Your task to perform on an android device: turn off translation in the chrome app Image 0: 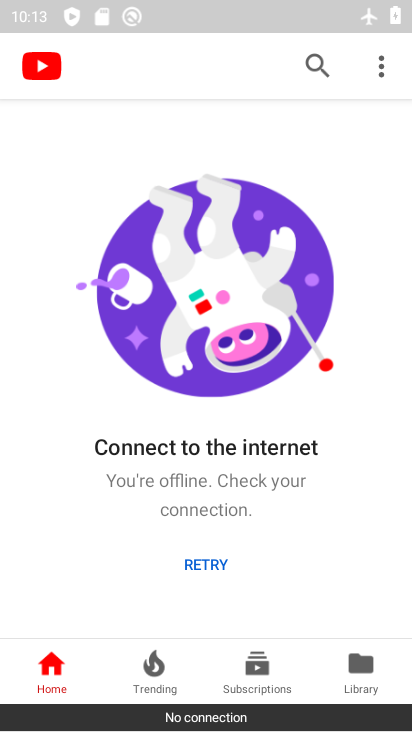
Step 0: press back button
Your task to perform on an android device: turn off translation in the chrome app Image 1: 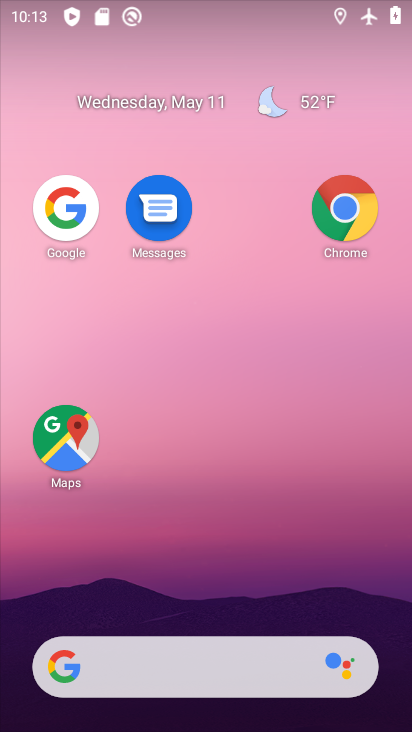
Step 1: click (354, 202)
Your task to perform on an android device: turn off translation in the chrome app Image 2: 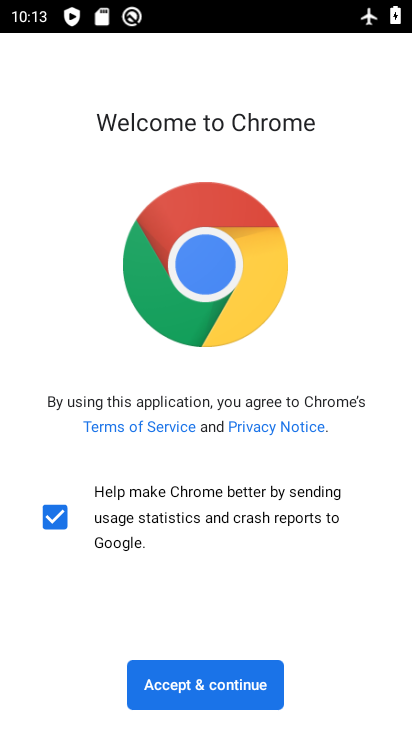
Step 2: click (160, 681)
Your task to perform on an android device: turn off translation in the chrome app Image 3: 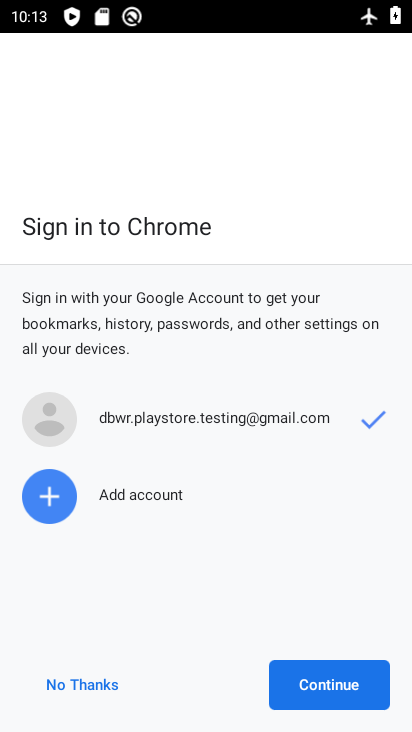
Step 3: click (305, 689)
Your task to perform on an android device: turn off translation in the chrome app Image 4: 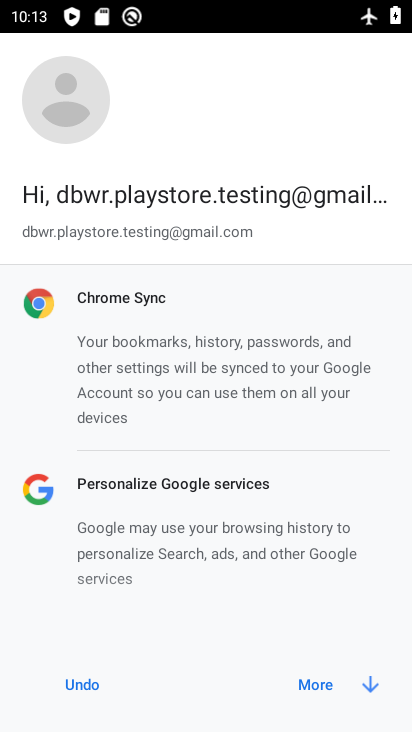
Step 4: click (359, 683)
Your task to perform on an android device: turn off translation in the chrome app Image 5: 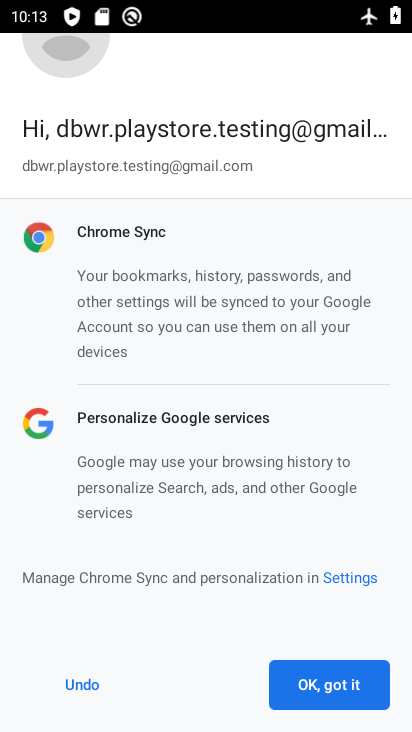
Step 5: click (359, 683)
Your task to perform on an android device: turn off translation in the chrome app Image 6: 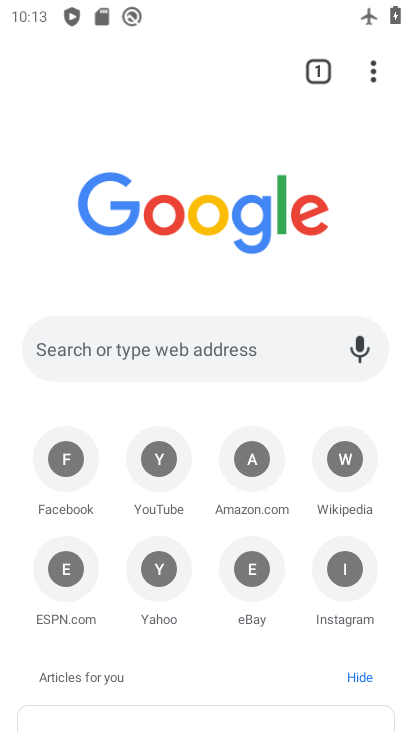
Step 6: click (376, 69)
Your task to perform on an android device: turn off translation in the chrome app Image 7: 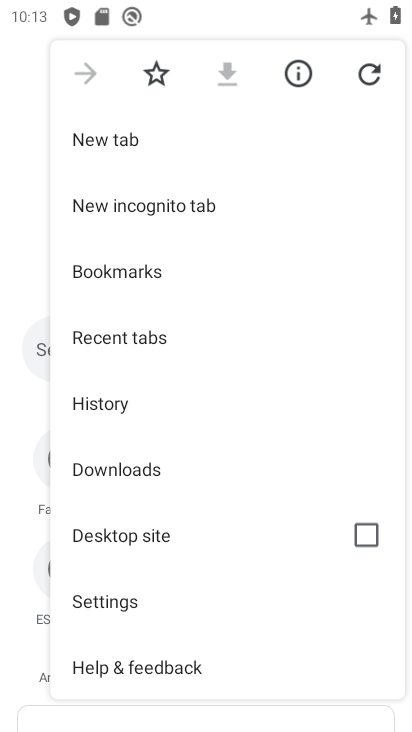
Step 7: click (93, 607)
Your task to perform on an android device: turn off translation in the chrome app Image 8: 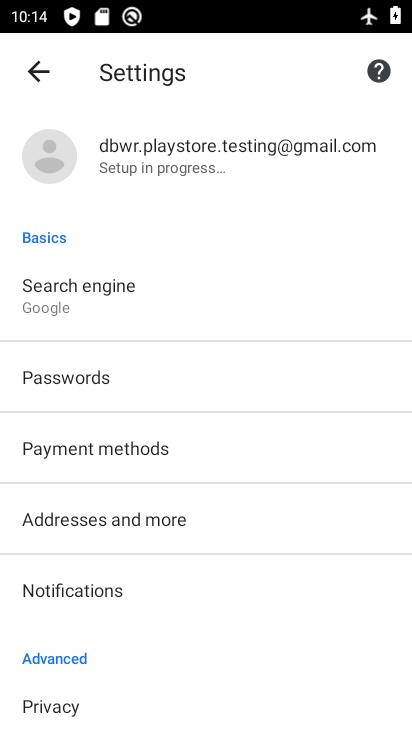
Step 8: drag from (135, 608) to (53, 144)
Your task to perform on an android device: turn off translation in the chrome app Image 9: 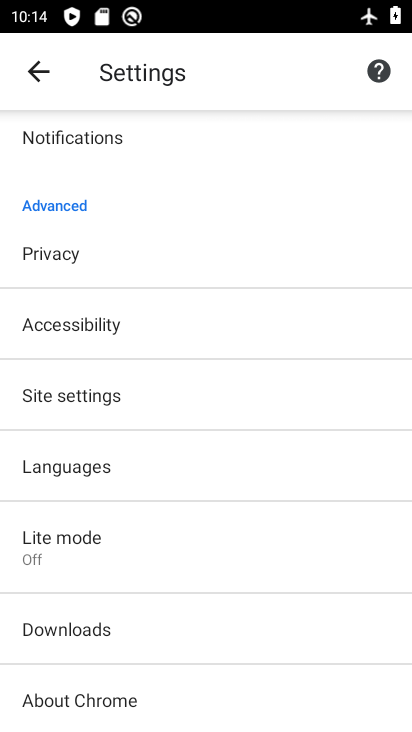
Step 9: click (112, 477)
Your task to perform on an android device: turn off translation in the chrome app Image 10: 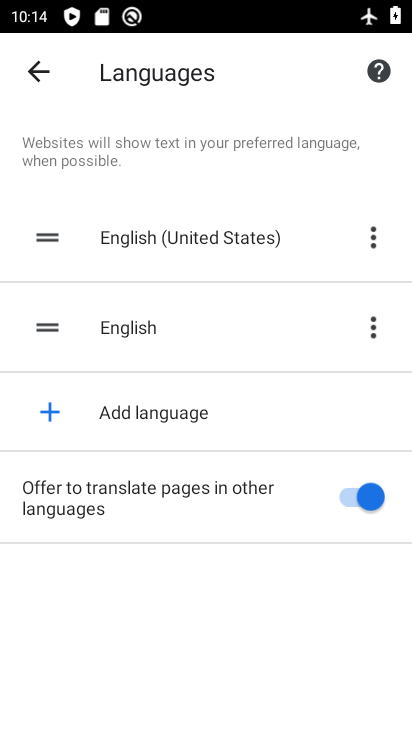
Step 10: click (347, 498)
Your task to perform on an android device: turn off translation in the chrome app Image 11: 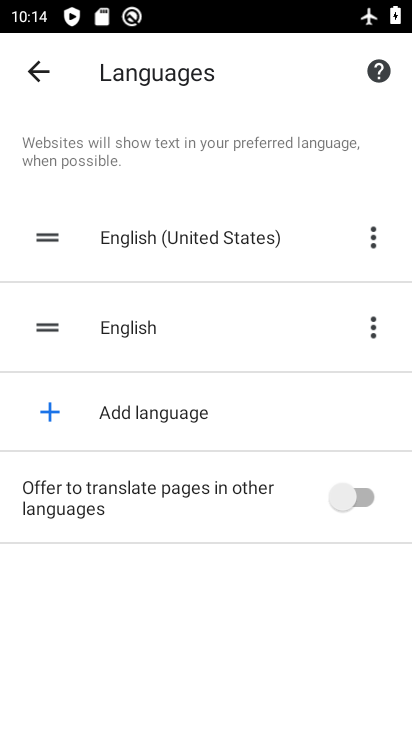
Step 11: task complete